Your task to perform on an android device: Go to notification settings Image 0: 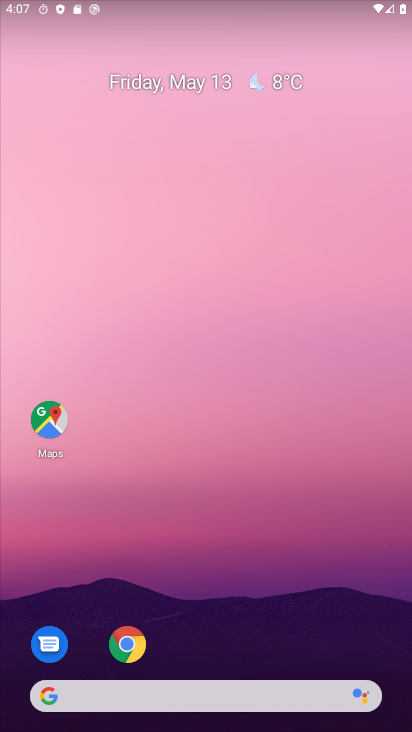
Step 0: drag from (254, 667) to (267, 71)
Your task to perform on an android device: Go to notification settings Image 1: 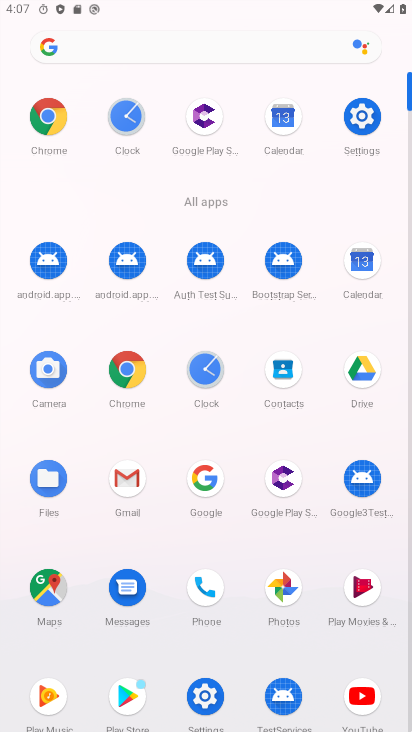
Step 1: click (361, 130)
Your task to perform on an android device: Go to notification settings Image 2: 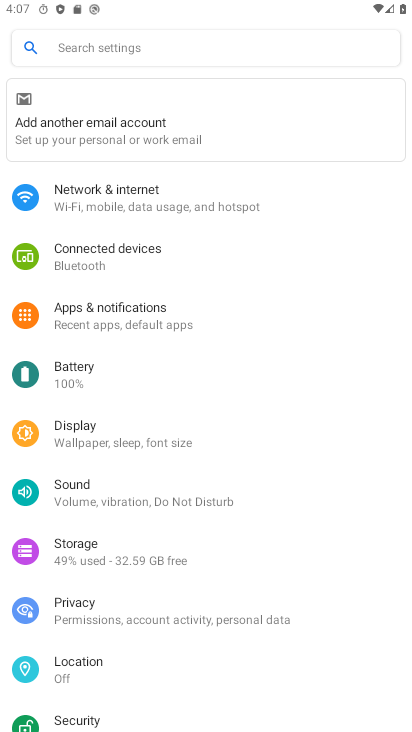
Step 2: click (180, 305)
Your task to perform on an android device: Go to notification settings Image 3: 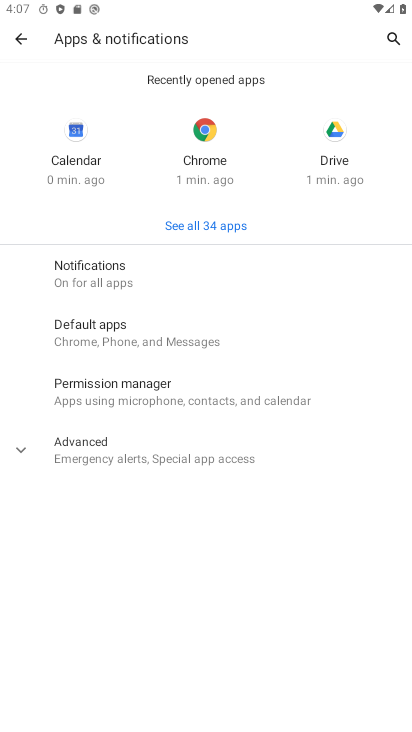
Step 3: click (141, 280)
Your task to perform on an android device: Go to notification settings Image 4: 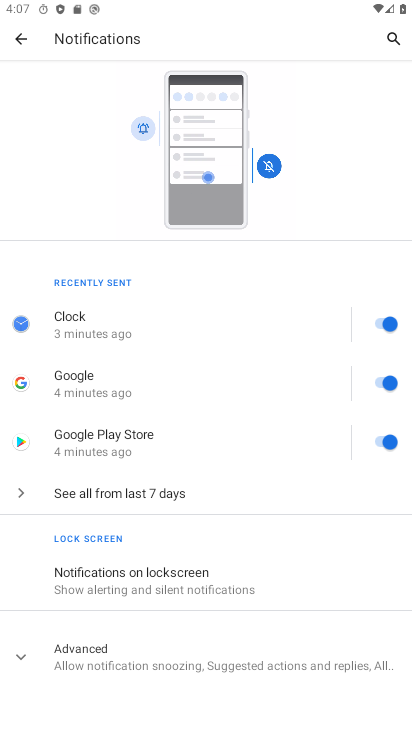
Step 4: task complete